Your task to perform on an android device: Open accessibility settings Image 0: 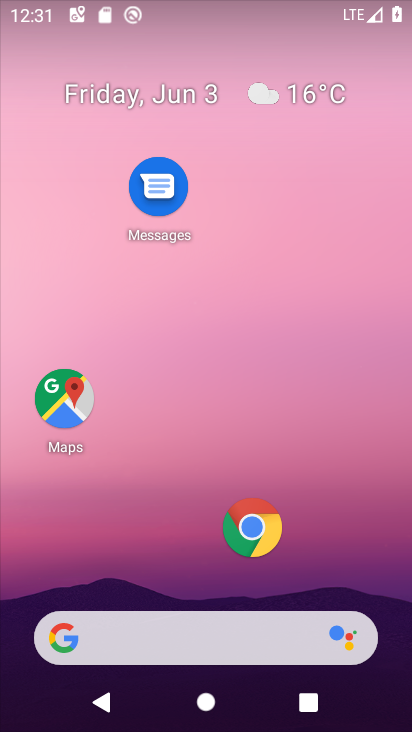
Step 0: drag from (213, 581) to (245, 39)
Your task to perform on an android device: Open accessibility settings Image 1: 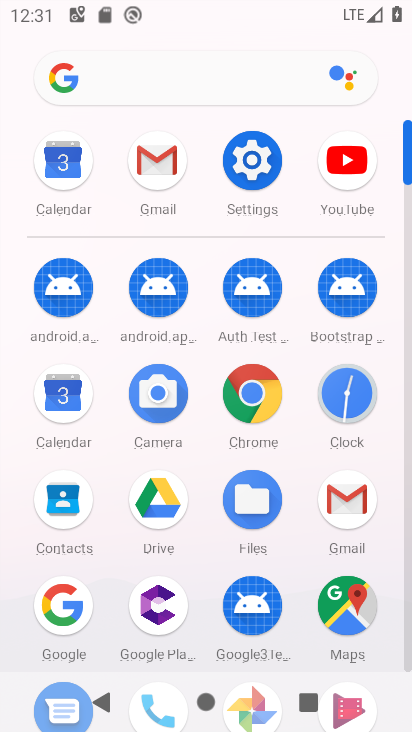
Step 1: click (245, 154)
Your task to perform on an android device: Open accessibility settings Image 2: 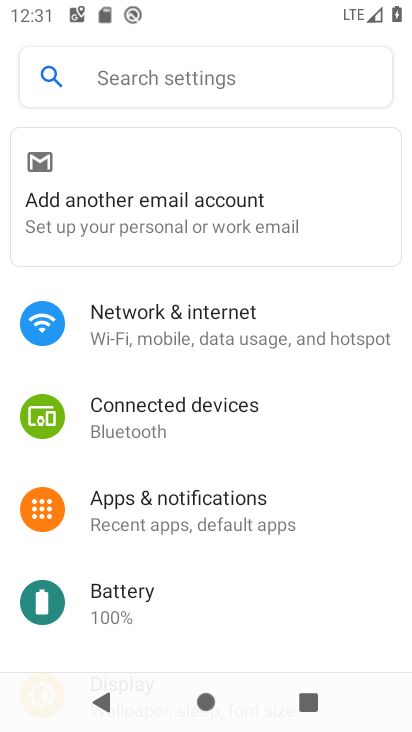
Step 2: drag from (192, 571) to (220, 33)
Your task to perform on an android device: Open accessibility settings Image 3: 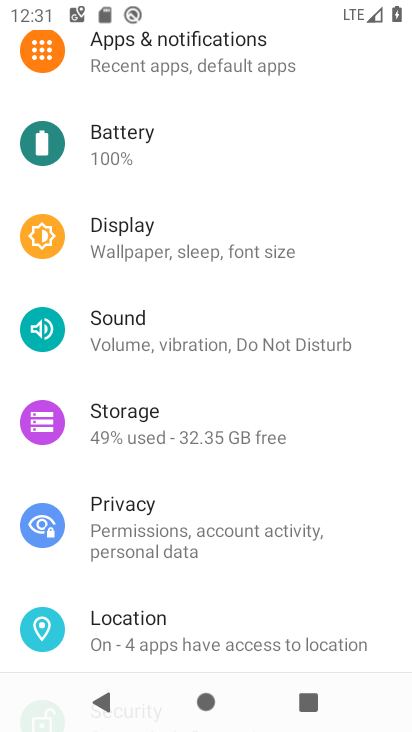
Step 3: drag from (207, 626) to (216, 69)
Your task to perform on an android device: Open accessibility settings Image 4: 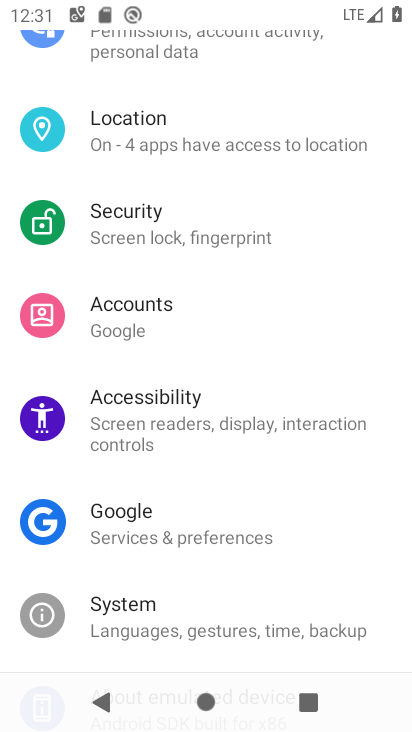
Step 4: click (187, 411)
Your task to perform on an android device: Open accessibility settings Image 5: 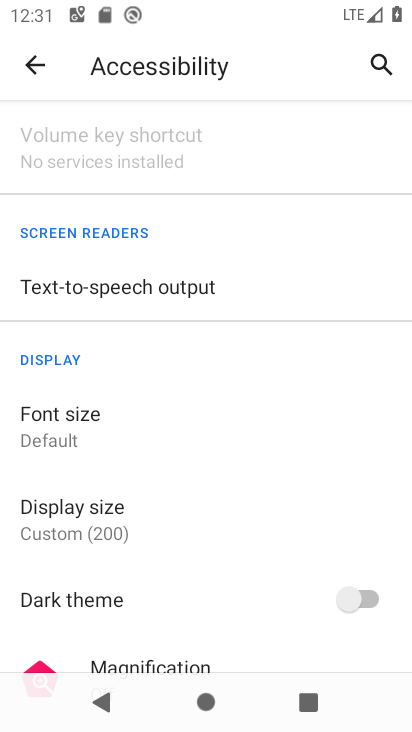
Step 5: task complete